Your task to perform on an android device: toggle sleep mode Image 0: 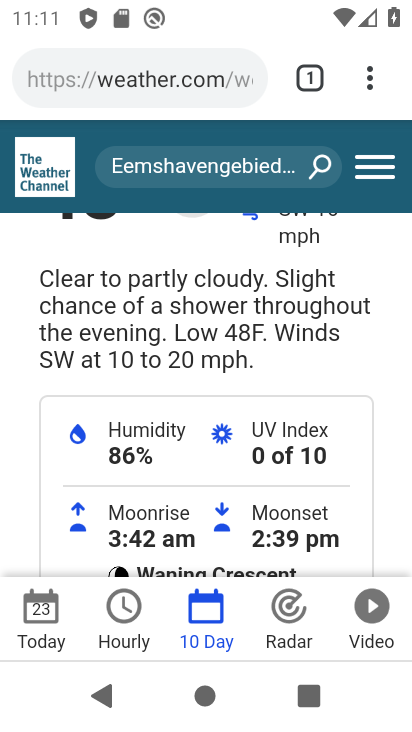
Step 0: press home button
Your task to perform on an android device: toggle sleep mode Image 1: 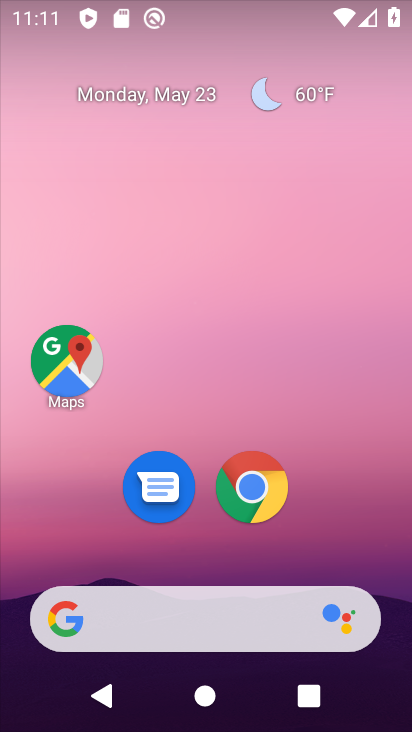
Step 1: drag from (75, 577) to (195, 94)
Your task to perform on an android device: toggle sleep mode Image 2: 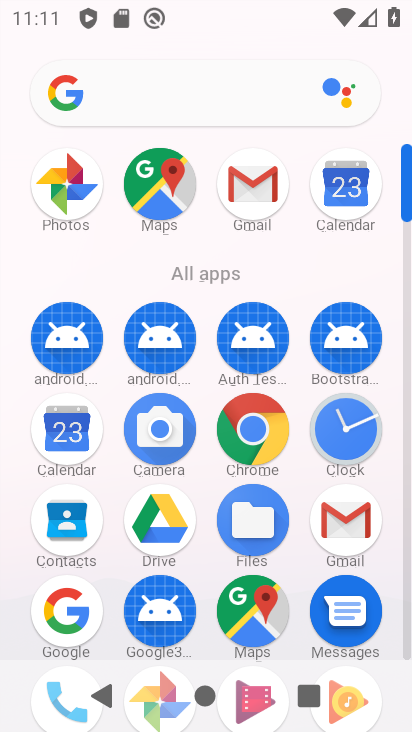
Step 2: drag from (163, 505) to (226, 342)
Your task to perform on an android device: toggle sleep mode Image 3: 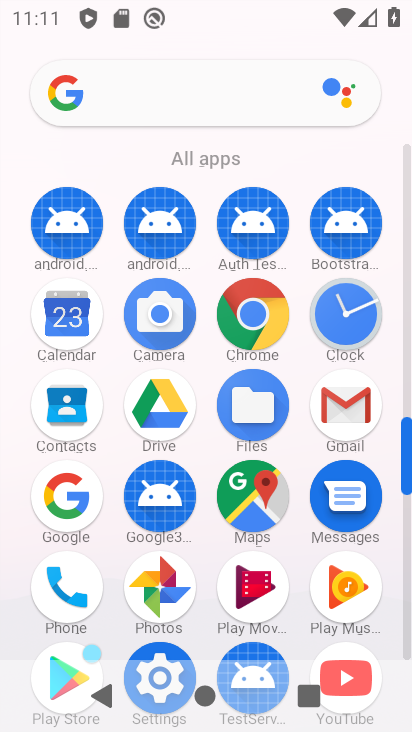
Step 3: click (149, 658)
Your task to perform on an android device: toggle sleep mode Image 4: 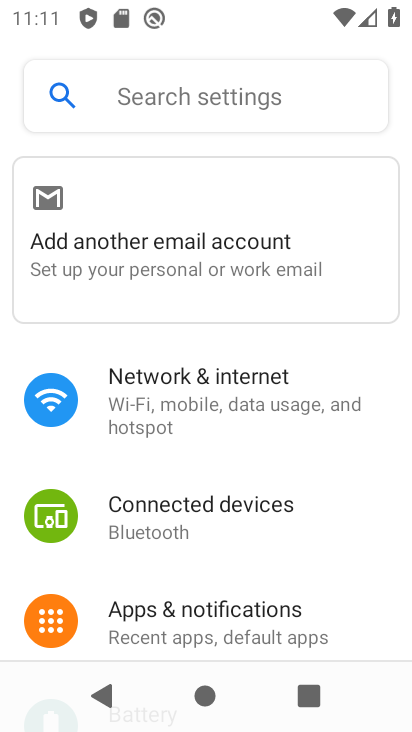
Step 4: drag from (194, 578) to (354, 149)
Your task to perform on an android device: toggle sleep mode Image 5: 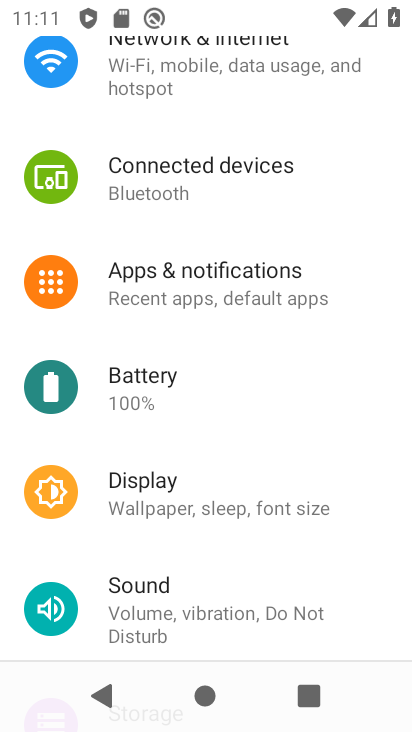
Step 5: click (182, 488)
Your task to perform on an android device: toggle sleep mode Image 6: 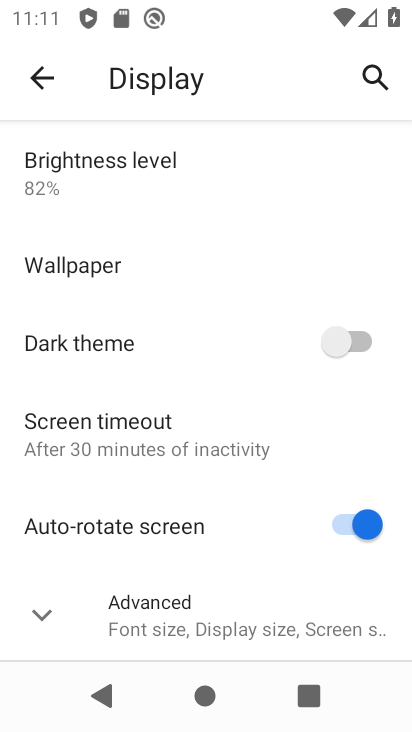
Step 6: click (158, 632)
Your task to perform on an android device: toggle sleep mode Image 7: 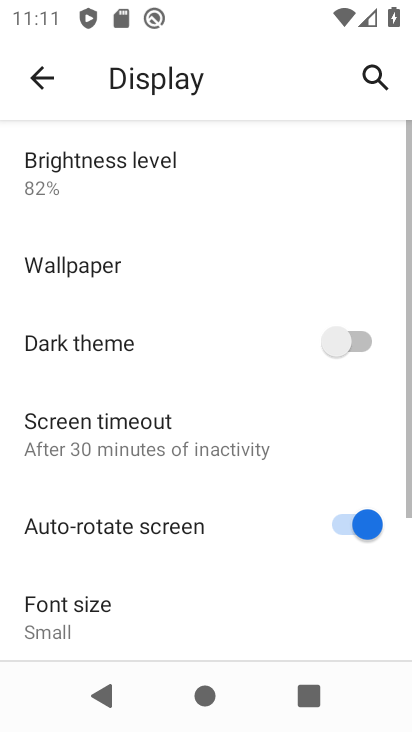
Step 7: task complete